Your task to perform on an android device: What's on the menu at Subway? Image 0: 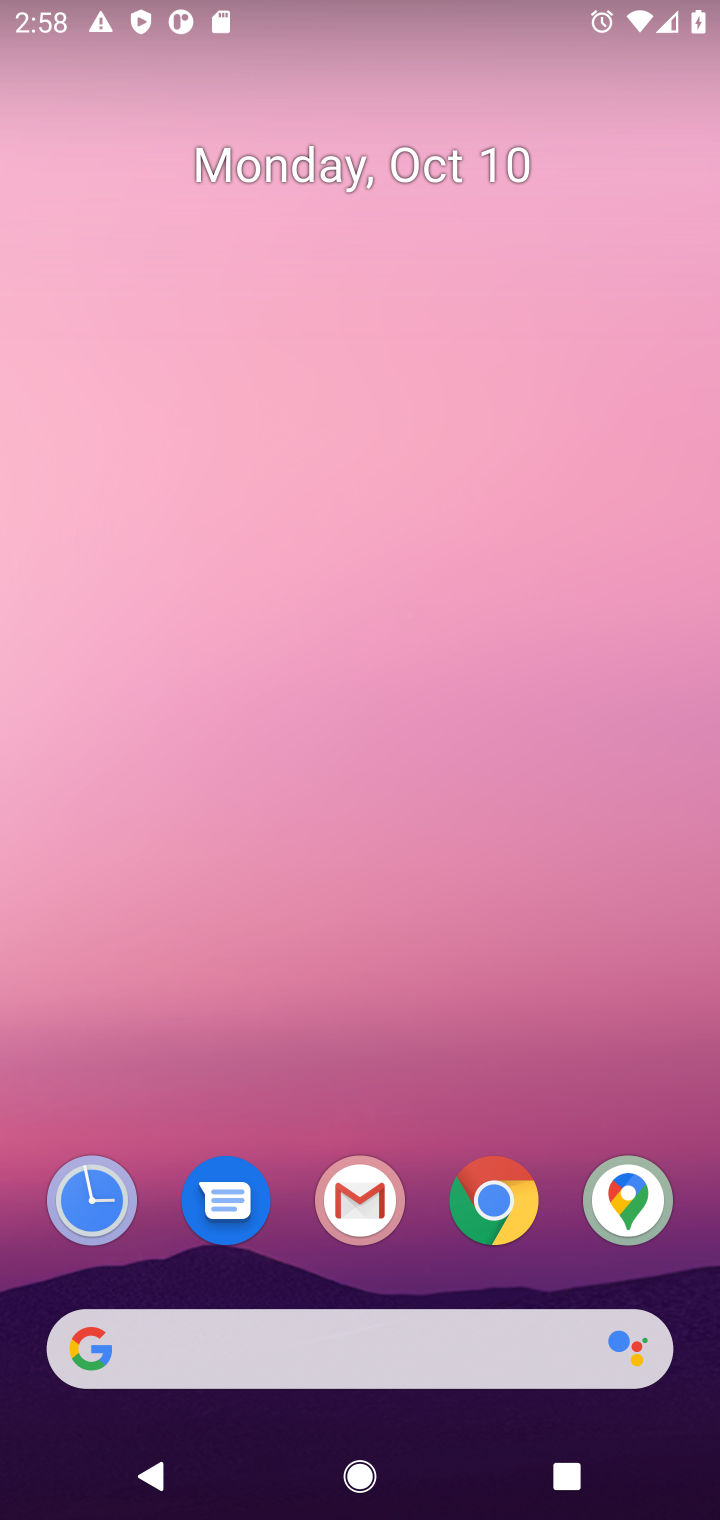
Step 0: click (523, 1191)
Your task to perform on an android device: What's on the menu at Subway? Image 1: 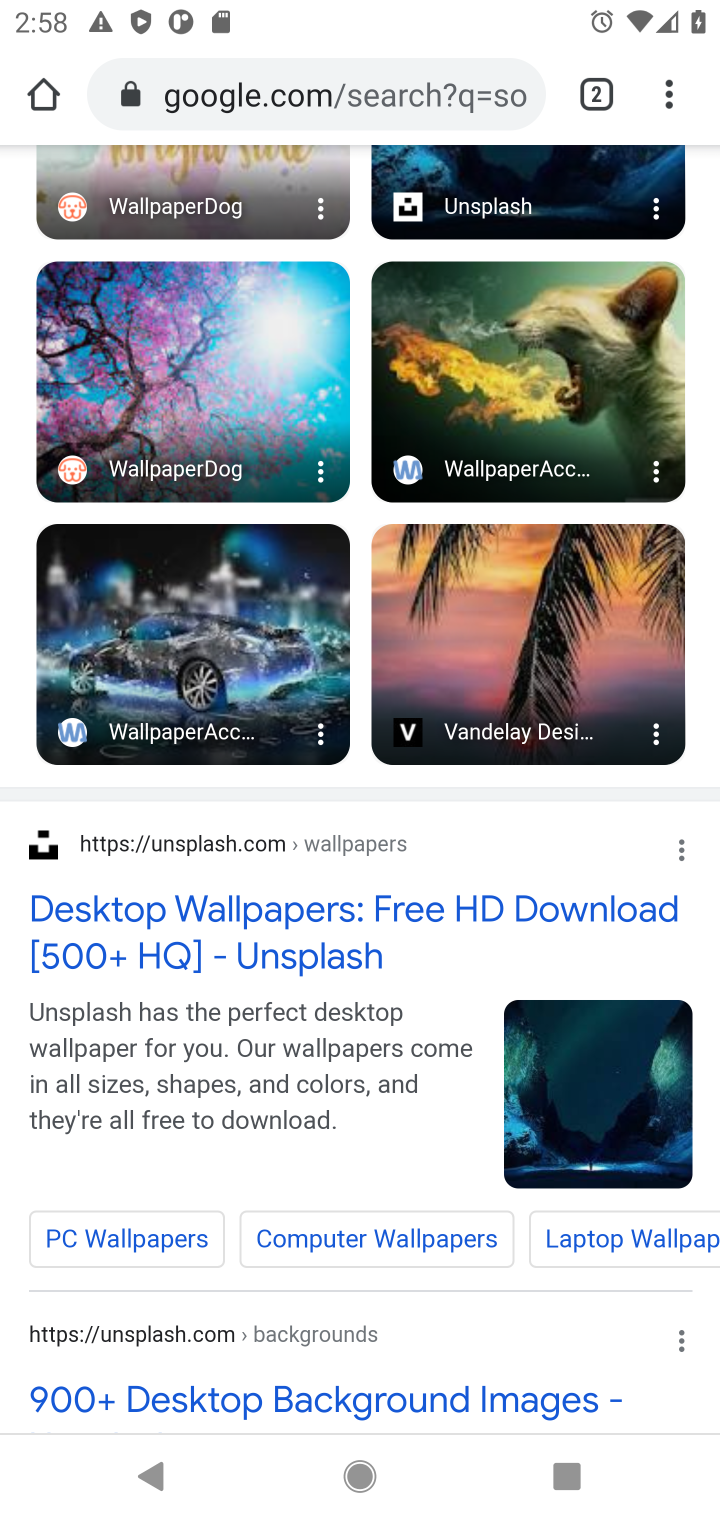
Step 1: click (397, 105)
Your task to perform on an android device: What's on the menu at Subway? Image 2: 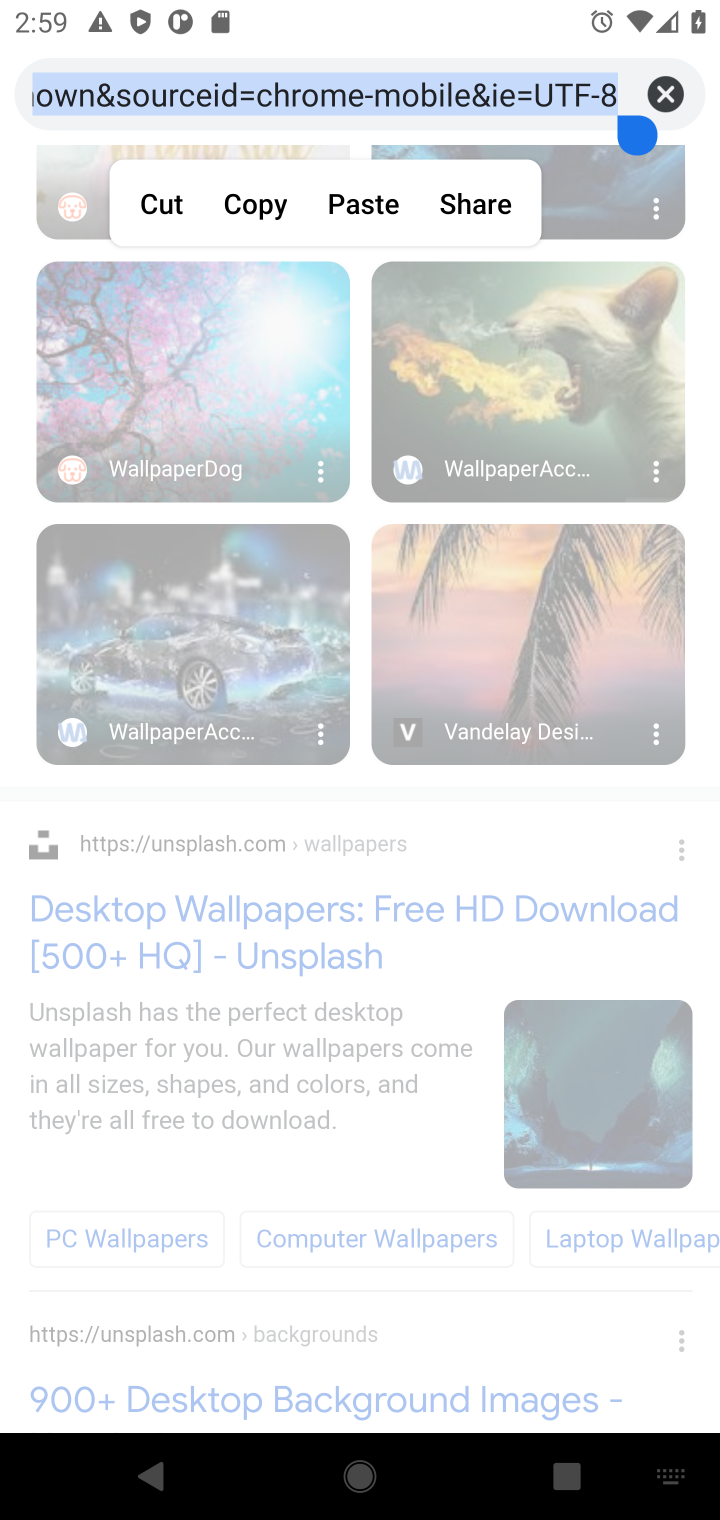
Step 2: type "menu at Subway"
Your task to perform on an android device: What's on the menu at Subway? Image 3: 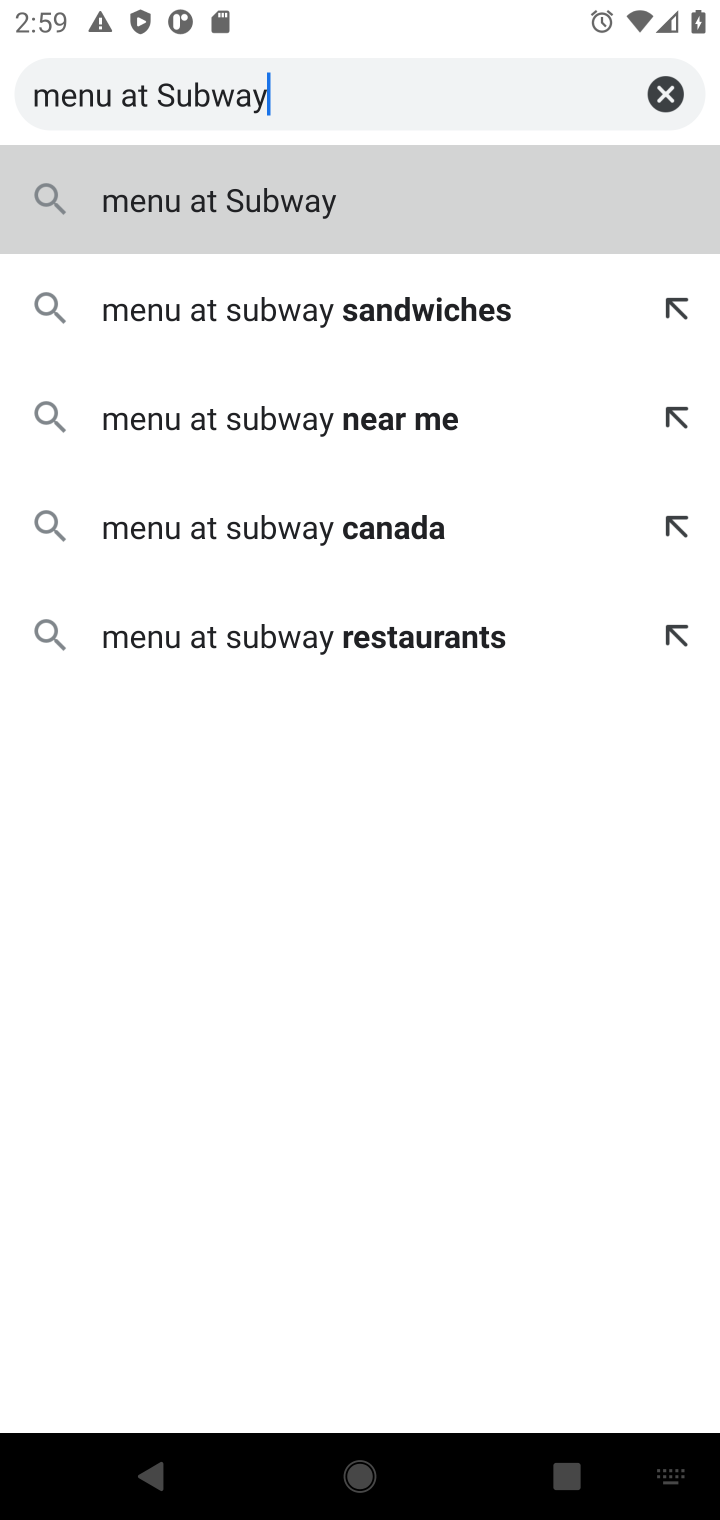
Step 3: click (209, 197)
Your task to perform on an android device: What's on the menu at Subway? Image 4: 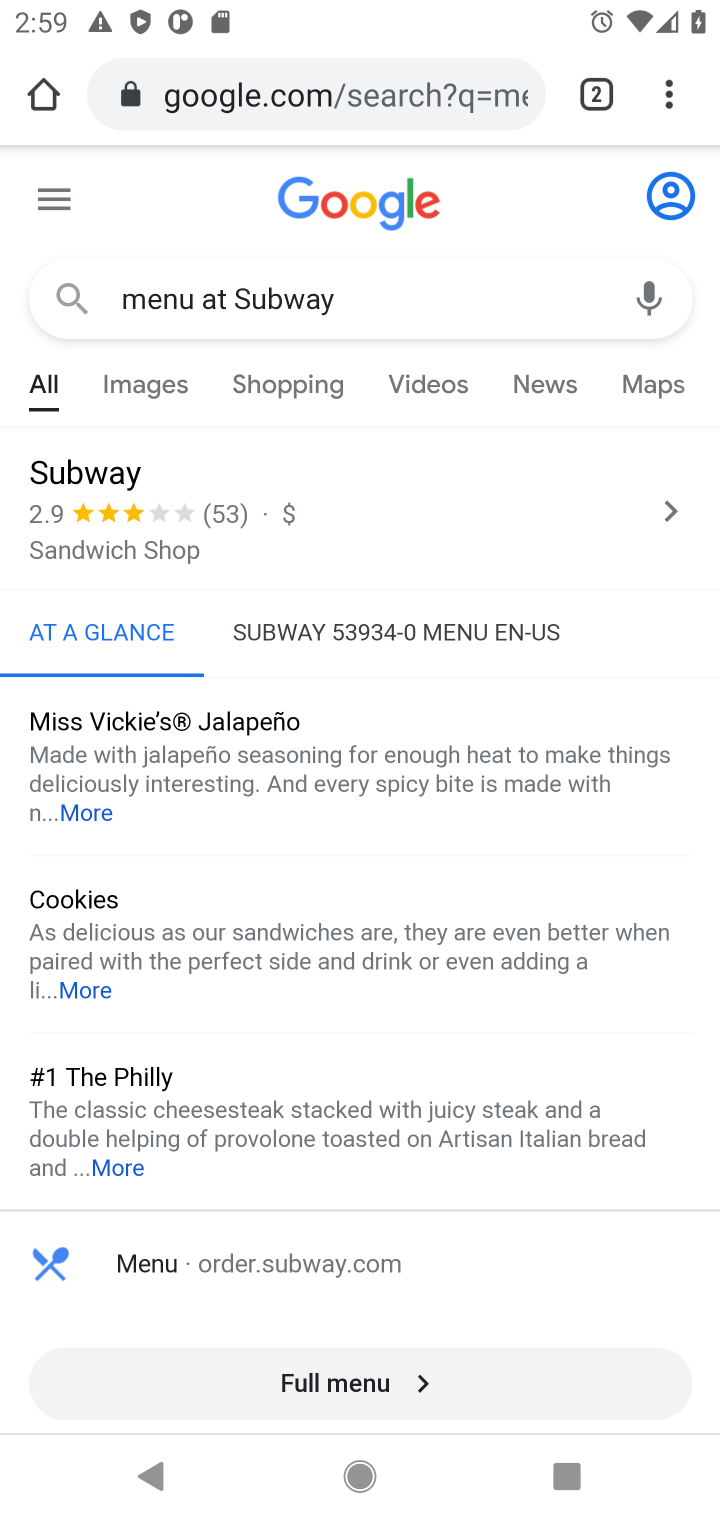
Step 4: drag from (417, 866) to (355, 416)
Your task to perform on an android device: What's on the menu at Subway? Image 5: 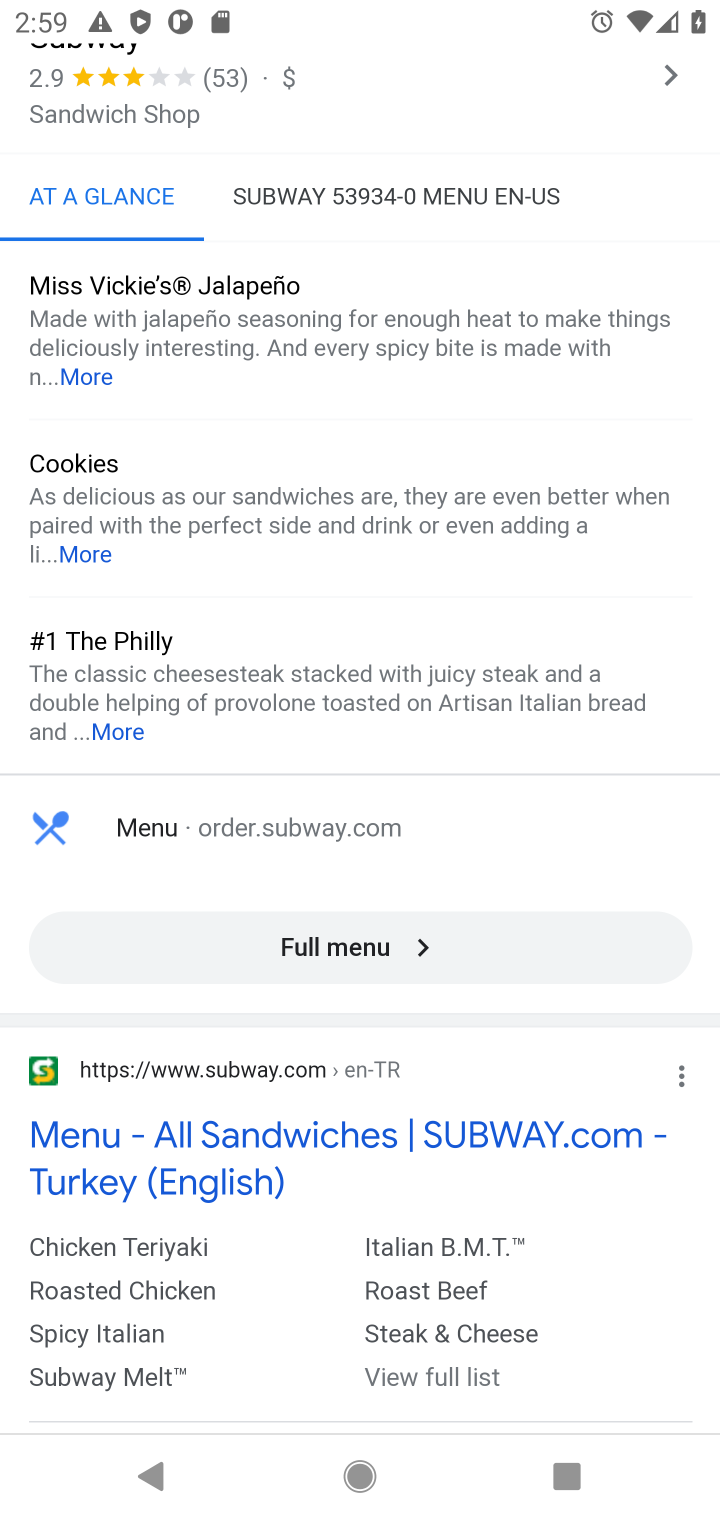
Step 5: click (364, 941)
Your task to perform on an android device: What's on the menu at Subway? Image 6: 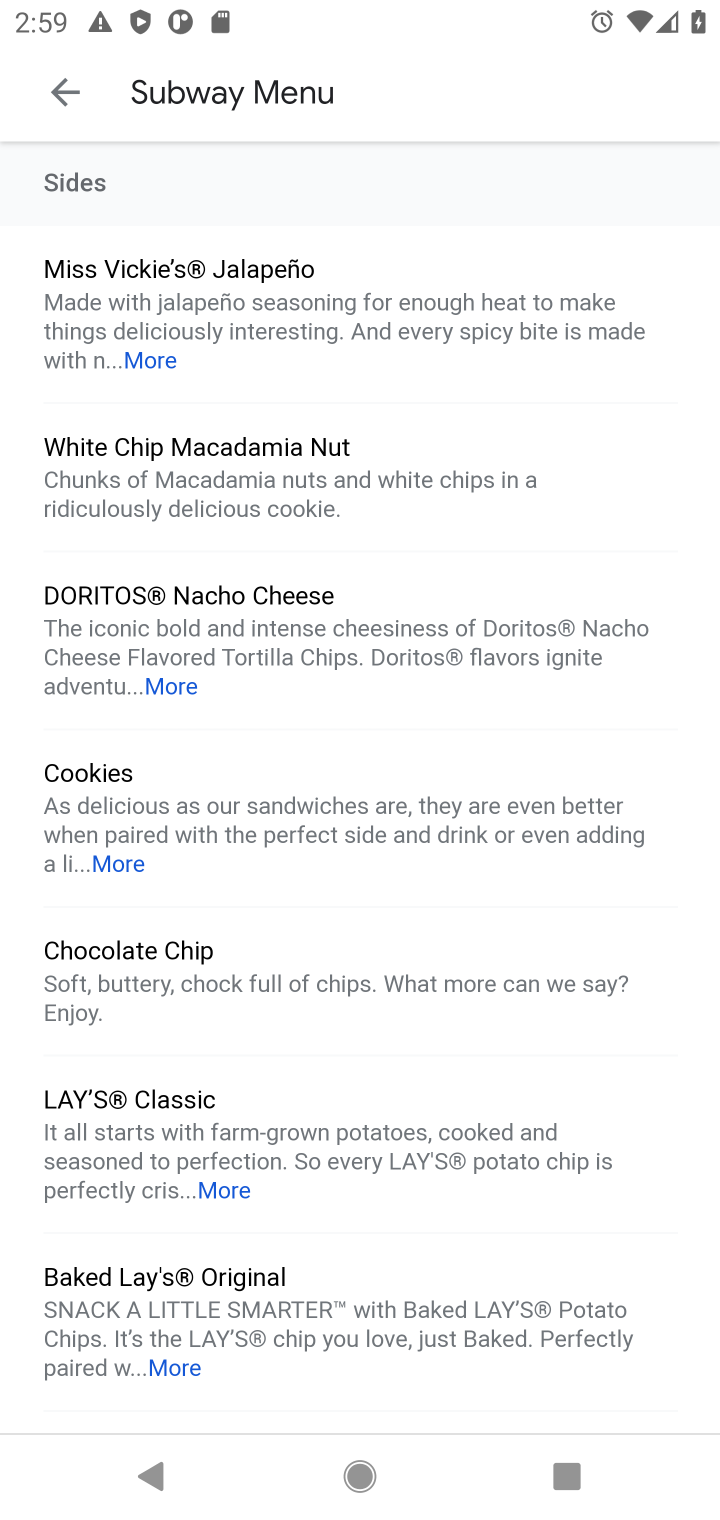
Step 6: task complete